Your task to perform on an android device: turn off improve location accuracy Image 0: 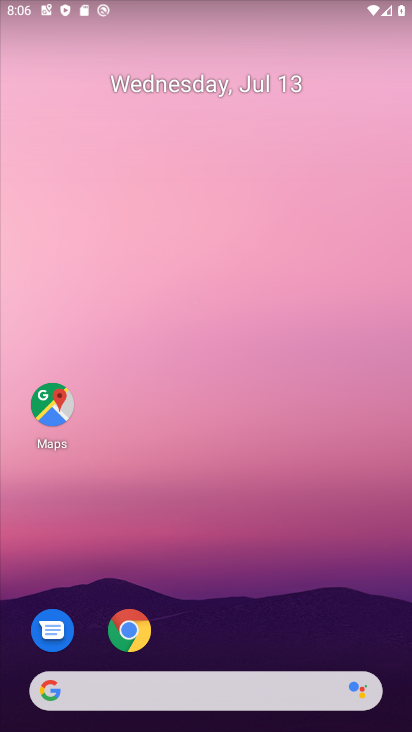
Step 0: drag from (349, 594) to (354, 92)
Your task to perform on an android device: turn off improve location accuracy Image 1: 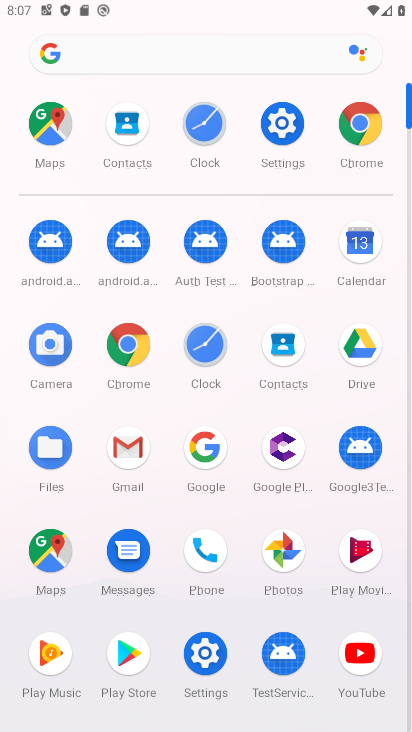
Step 1: click (286, 132)
Your task to perform on an android device: turn off improve location accuracy Image 2: 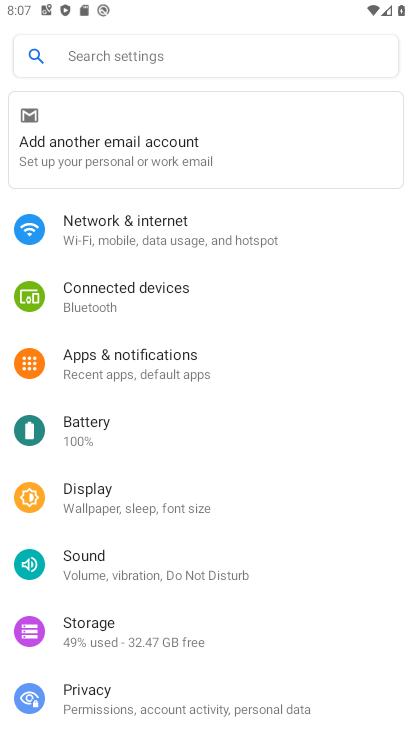
Step 2: drag from (348, 460) to (349, 361)
Your task to perform on an android device: turn off improve location accuracy Image 3: 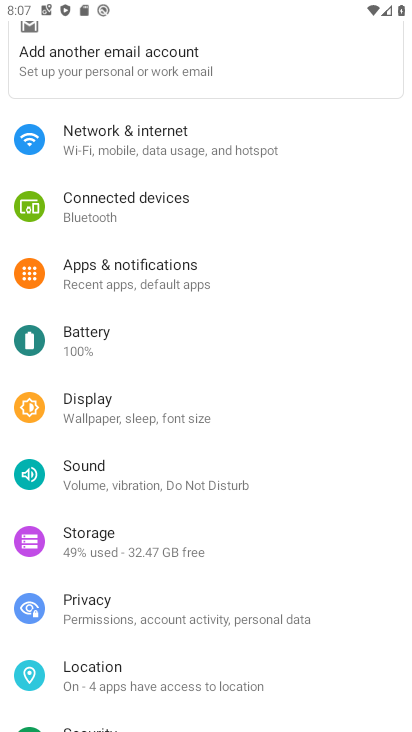
Step 3: drag from (349, 496) to (347, 404)
Your task to perform on an android device: turn off improve location accuracy Image 4: 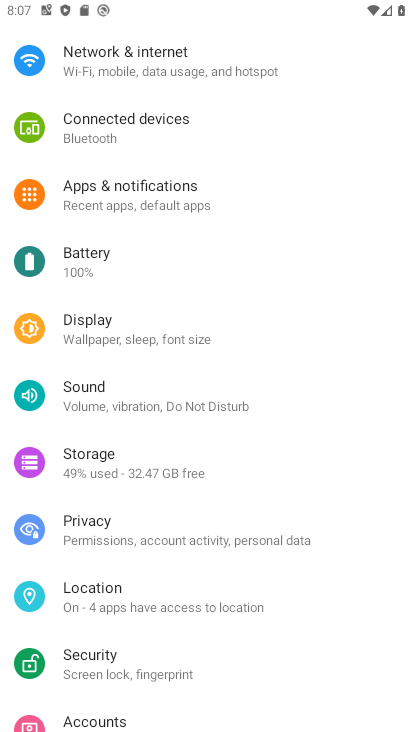
Step 4: drag from (349, 504) to (349, 416)
Your task to perform on an android device: turn off improve location accuracy Image 5: 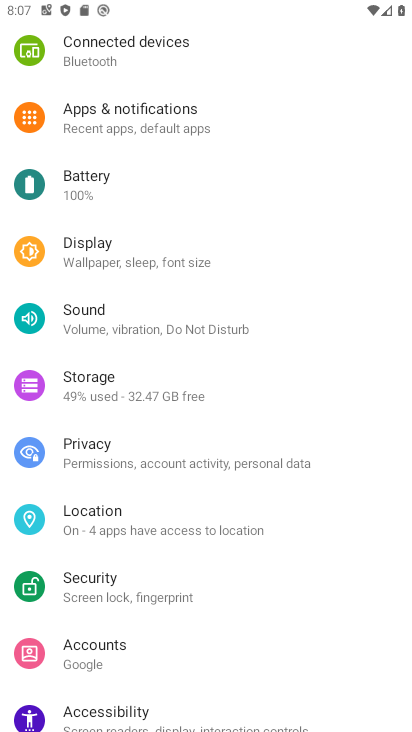
Step 5: drag from (334, 544) to (335, 419)
Your task to perform on an android device: turn off improve location accuracy Image 6: 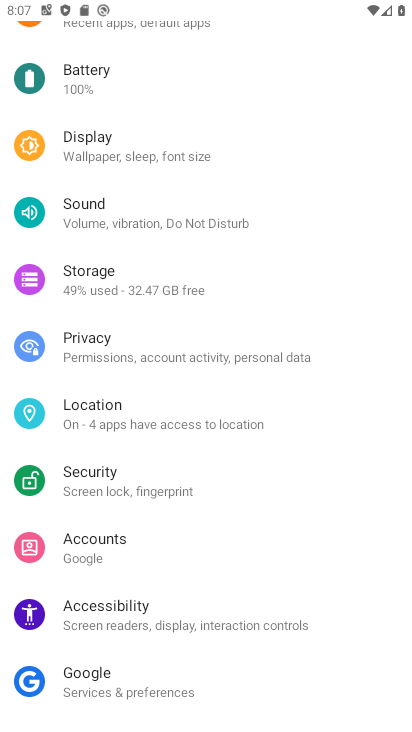
Step 6: drag from (329, 537) to (334, 417)
Your task to perform on an android device: turn off improve location accuracy Image 7: 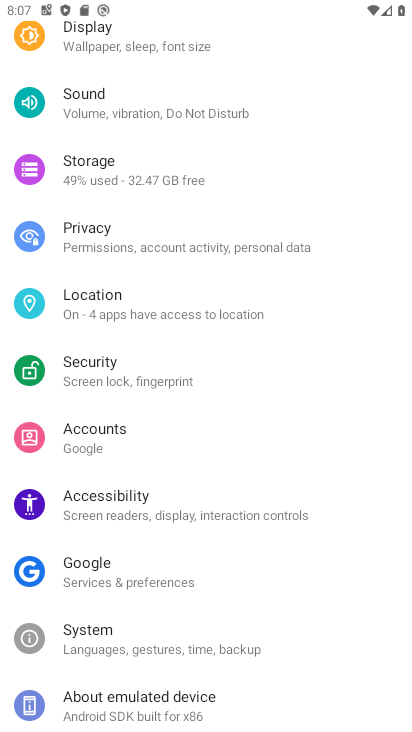
Step 7: drag from (362, 559) to (359, 409)
Your task to perform on an android device: turn off improve location accuracy Image 8: 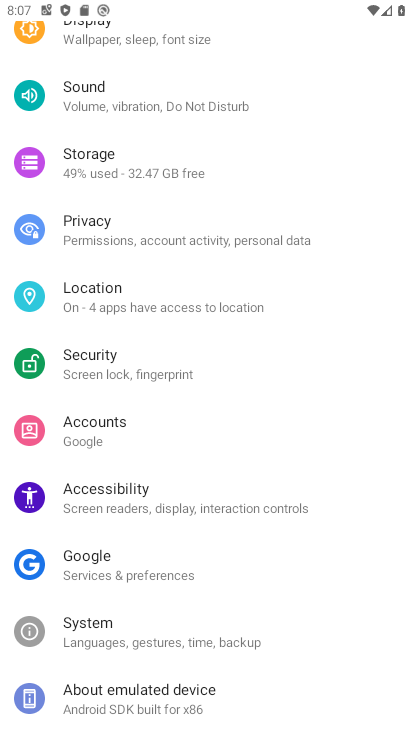
Step 8: drag from (350, 286) to (349, 361)
Your task to perform on an android device: turn off improve location accuracy Image 9: 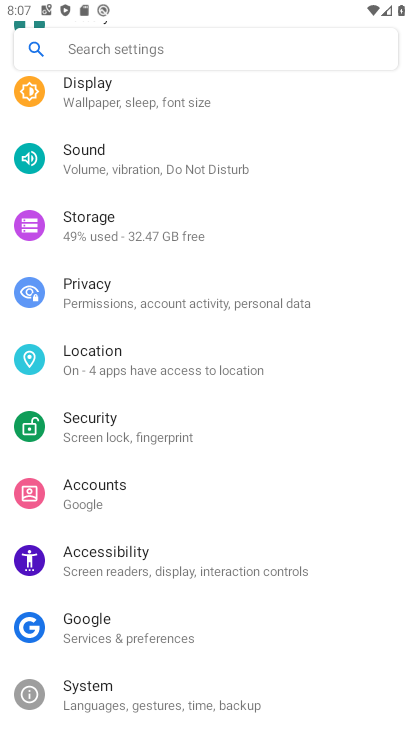
Step 9: drag from (348, 283) to (348, 366)
Your task to perform on an android device: turn off improve location accuracy Image 10: 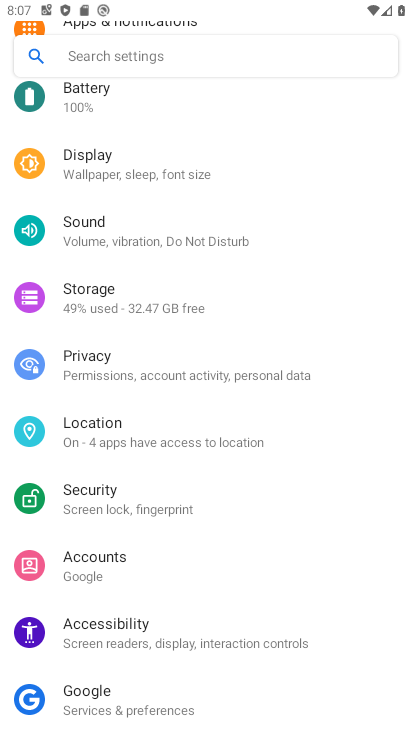
Step 10: drag from (347, 269) to (346, 398)
Your task to perform on an android device: turn off improve location accuracy Image 11: 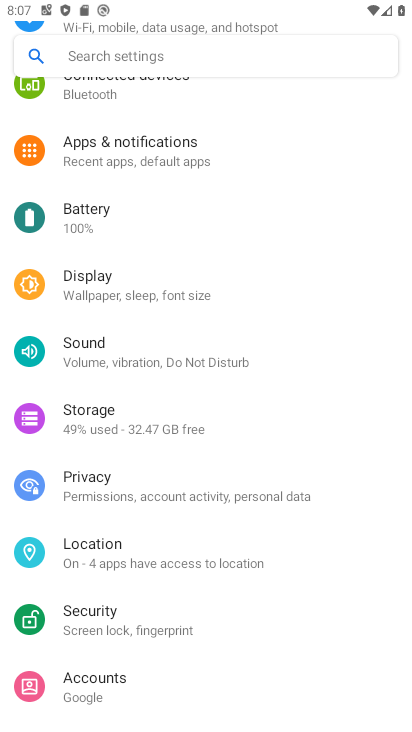
Step 11: drag from (347, 279) to (356, 400)
Your task to perform on an android device: turn off improve location accuracy Image 12: 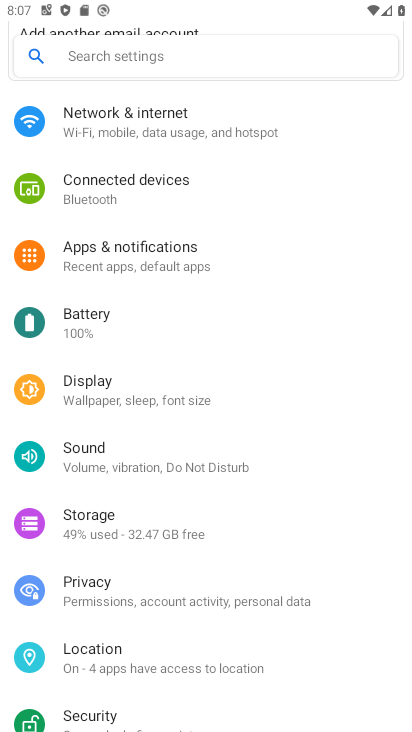
Step 12: drag from (314, 613) to (350, 347)
Your task to perform on an android device: turn off improve location accuracy Image 13: 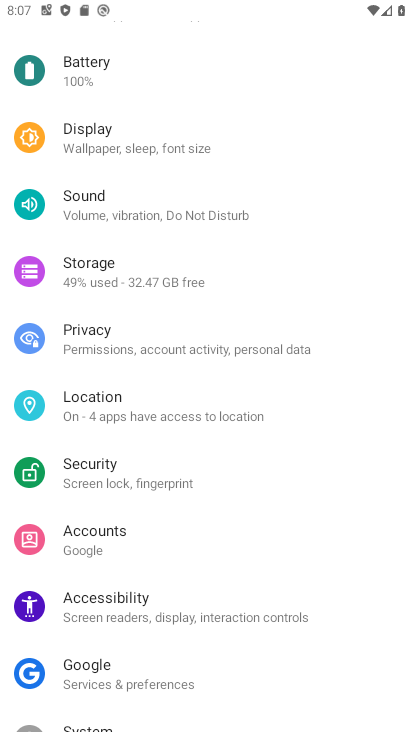
Step 13: click (287, 414)
Your task to perform on an android device: turn off improve location accuracy Image 14: 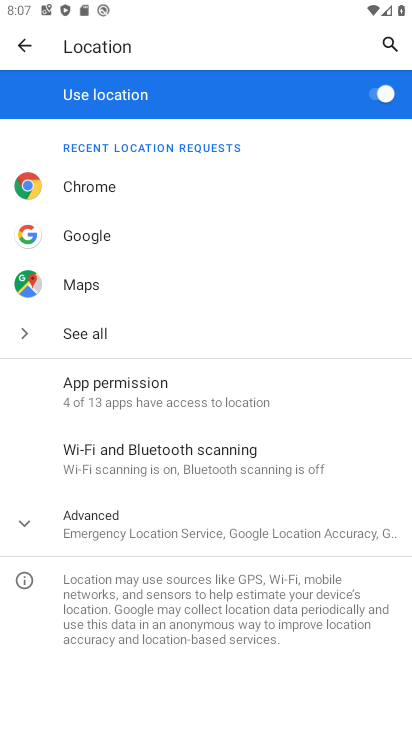
Step 14: click (217, 535)
Your task to perform on an android device: turn off improve location accuracy Image 15: 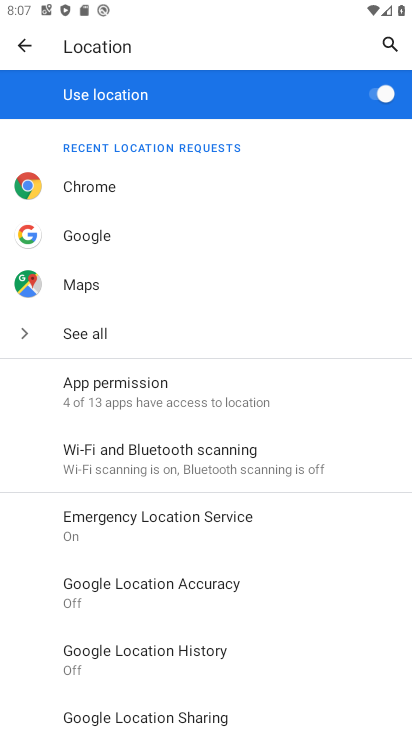
Step 15: drag from (298, 552) to (309, 413)
Your task to perform on an android device: turn off improve location accuracy Image 16: 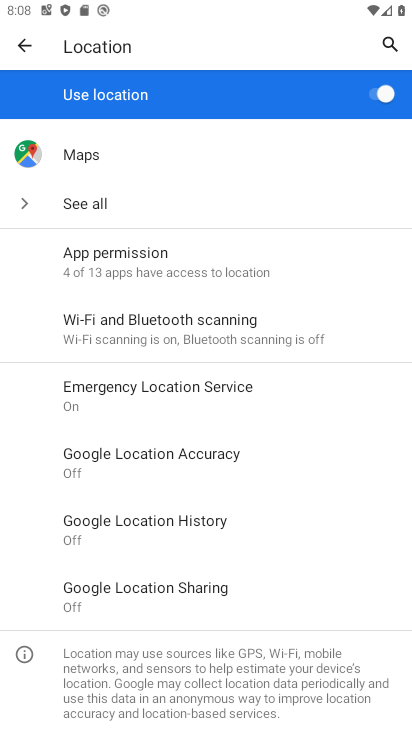
Step 16: drag from (314, 542) to (315, 413)
Your task to perform on an android device: turn off improve location accuracy Image 17: 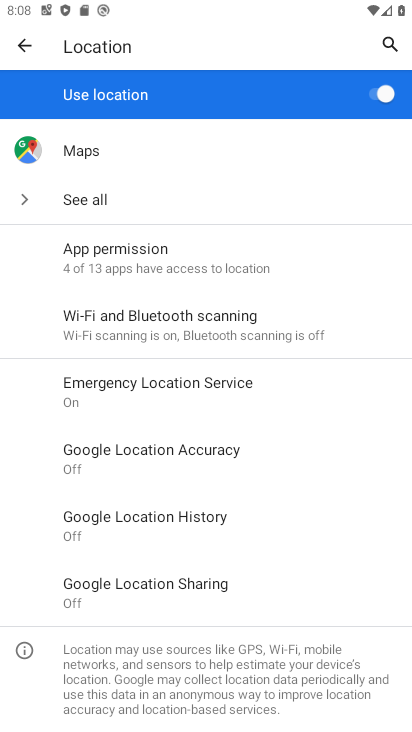
Step 17: click (236, 452)
Your task to perform on an android device: turn off improve location accuracy Image 18: 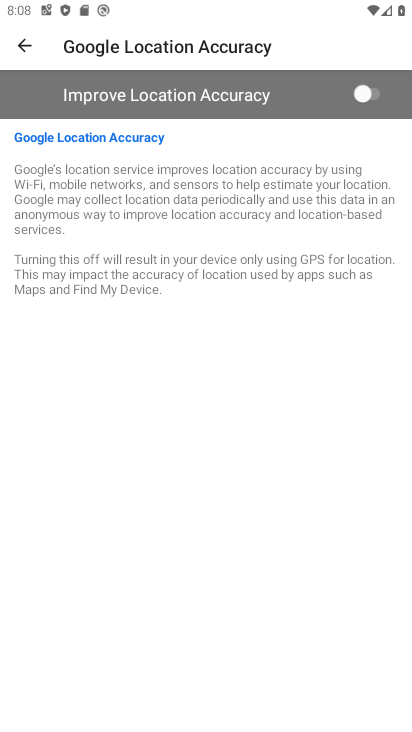
Step 18: task complete